Your task to perform on an android device: Toggle the flashlight Image 0: 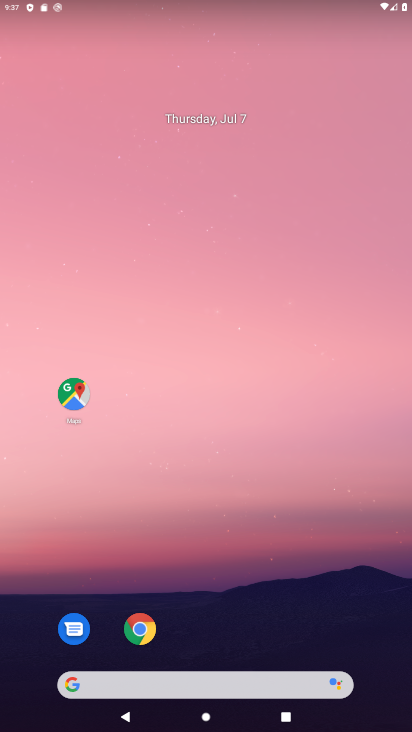
Step 0: drag from (222, 644) to (235, 1)
Your task to perform on an android device: Toggle the flashlight Image 1: 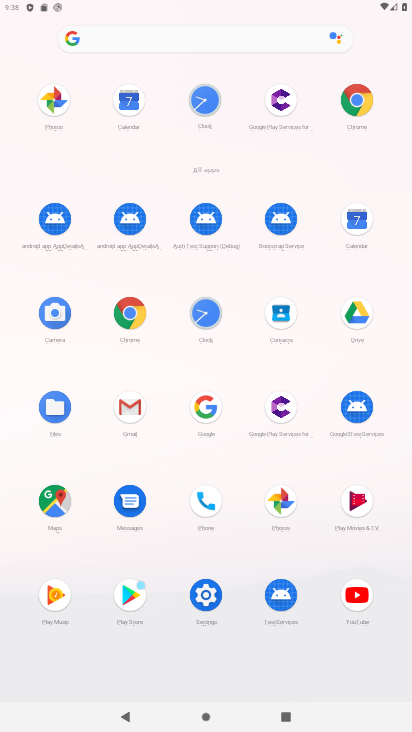
Step 1: click (195, 585)
Your task to perform on an android device: Toggle the flashlight Image 2: 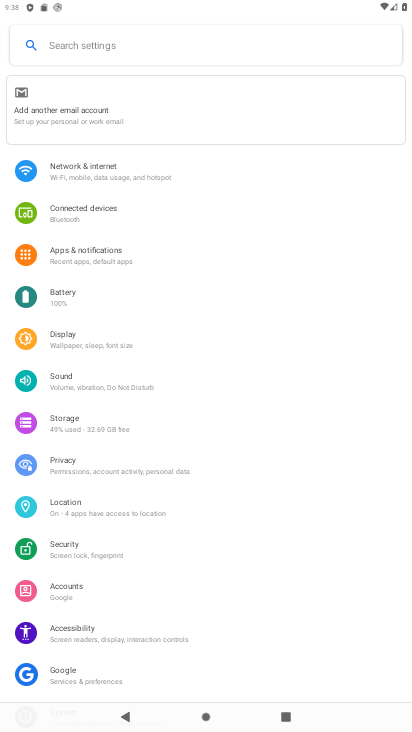
Step 2: task complete